Your task to perform on an android device: turn off wifi Image 0: 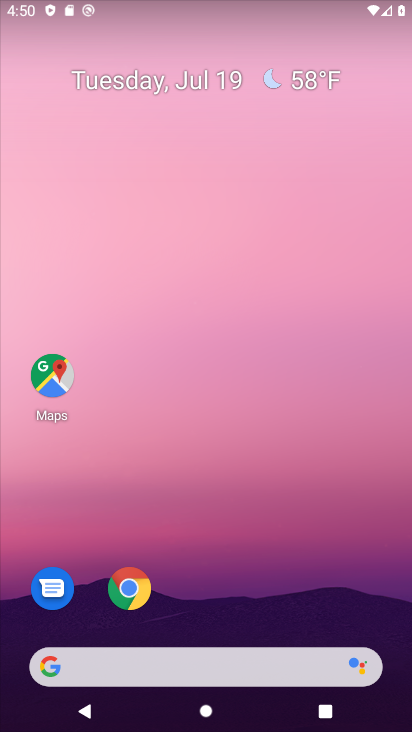
Step 0: drag from (333, 562) to (172, 202)
Your task to perform on an android device: turn off wifi Image 1: 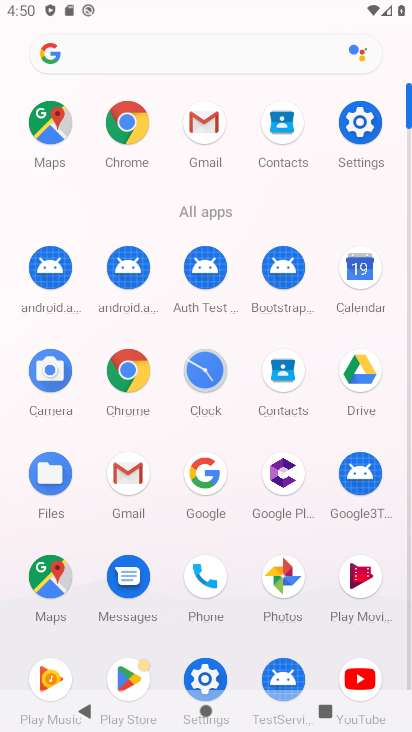
Step 1: click (356, 126)
Your task to perform on an android device: turn off wifi Image 2: 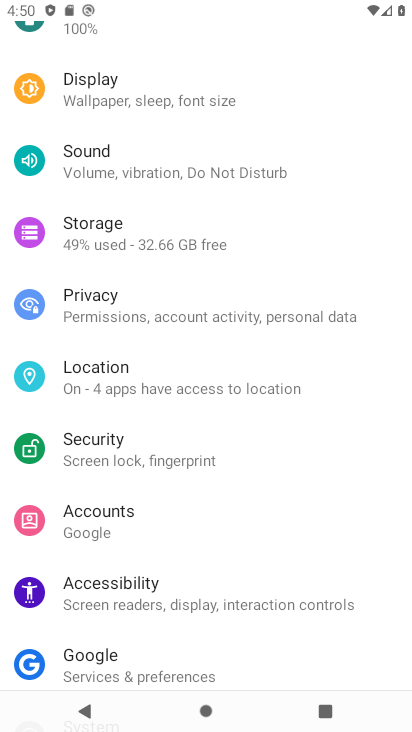
Step 2: drag from (145, 159) to (135, 566)
Your task to perform on an android device: turn off wifi Image 3: 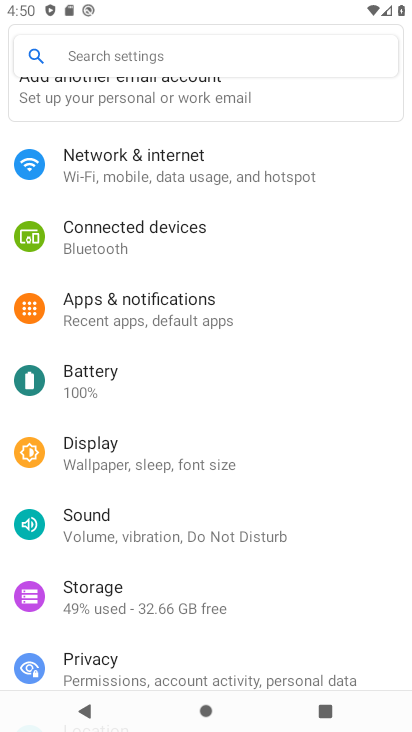
Step 3: click (193, 179)
Your task to perform on an android device: turn off wifi Image 4: 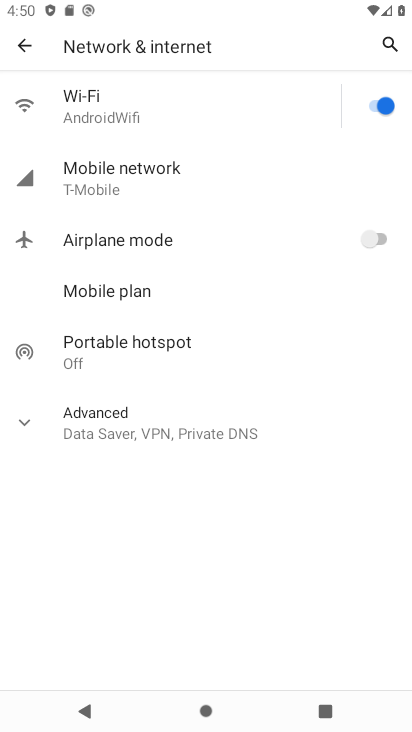
Step 4: click (209, 117)
Your task to perform on an android device: turn off wifi Image 5: 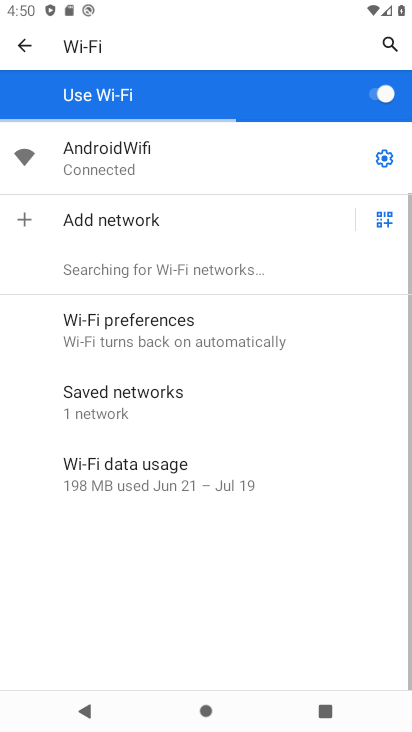
Step 5: click (372, 101)
Your task to perform on an android device: turn off wifi Image 6: 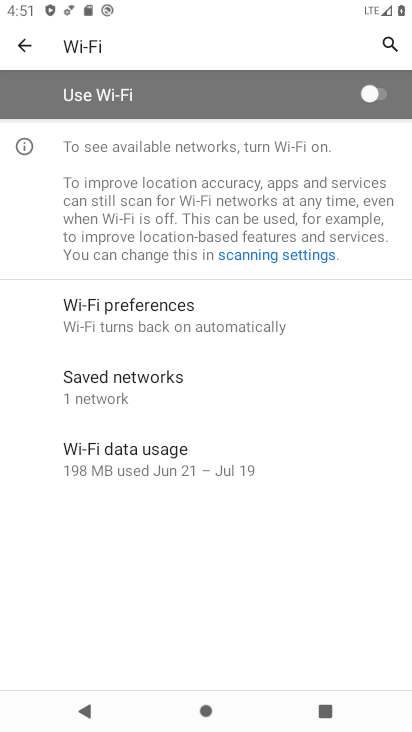
Step 6: task complete